Your task to perform on an android device: Go to Yahoo.com Image 0: 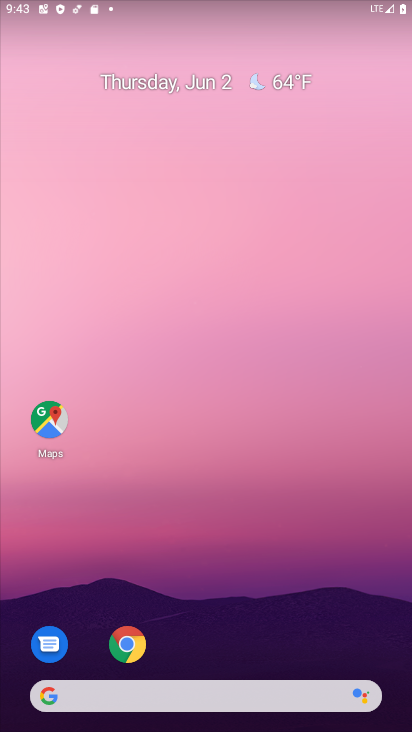
Step 0: click (130, 652)
Your task to perform on an android device: Go to Yahoo.com Image 1: 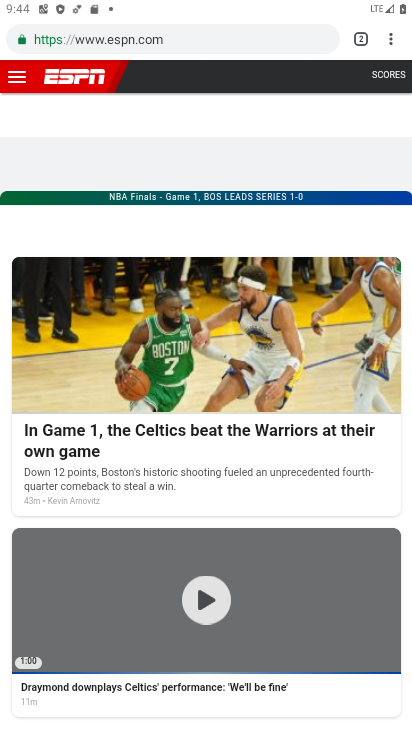
Step 1: click (187, 35)
Your task to perform on an android device: Go to Yahoo.com Image 2: 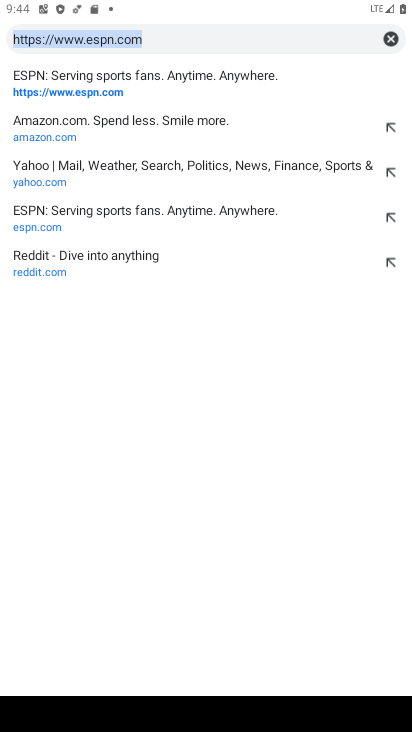
Step 2: type " Yahoo.com"
Your task to perform on an android device: Go to Yahoo.com Image 3: 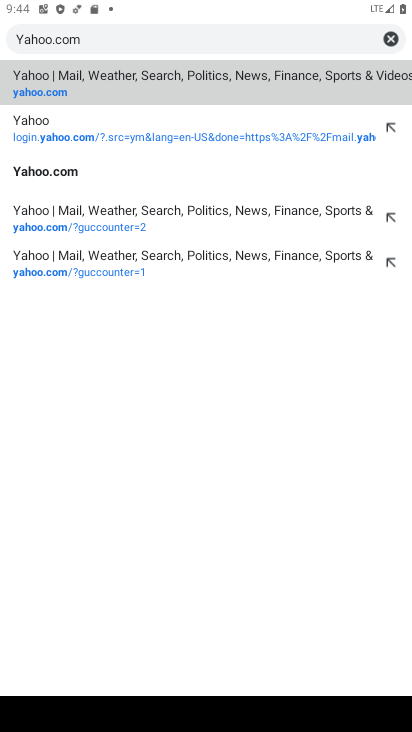
Step 3: click (12, 73)
Your task to perform on an android device: Go to Yahoo.com Image 4: 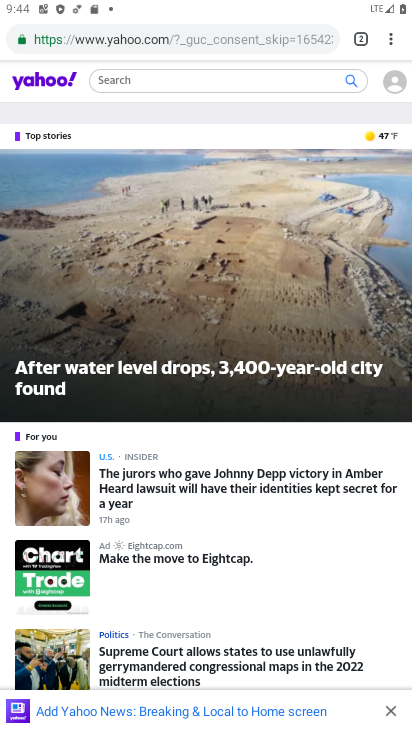
Step 4: task complete